Your task to perform on an android device: change notification settings in the gmail app Image 0: 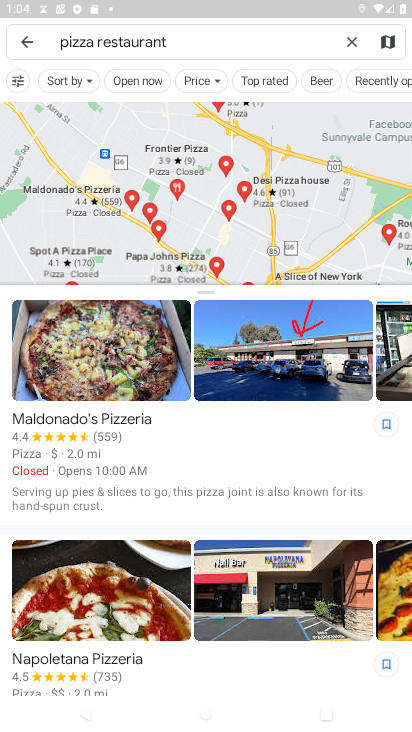
Step 0: press back button
Your task to perform on an android device: change notification settings in the gmail app Image 1: 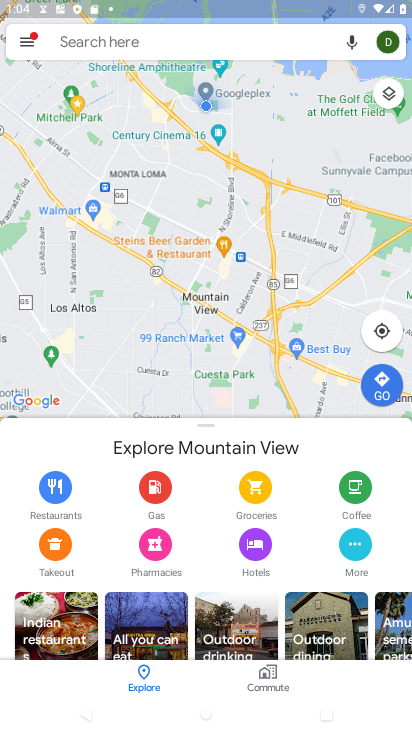
Step 1: press back button
Your task to perform on an android device: change notification settings in the gmail app Image 2: 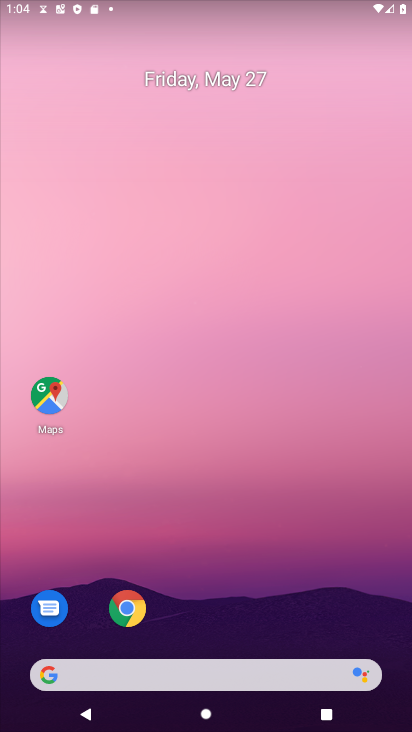
Step 2: drag from (189, 629) to (253, 72)
Your task to perform on an android device: change notification settings in the gmail app Image 3: 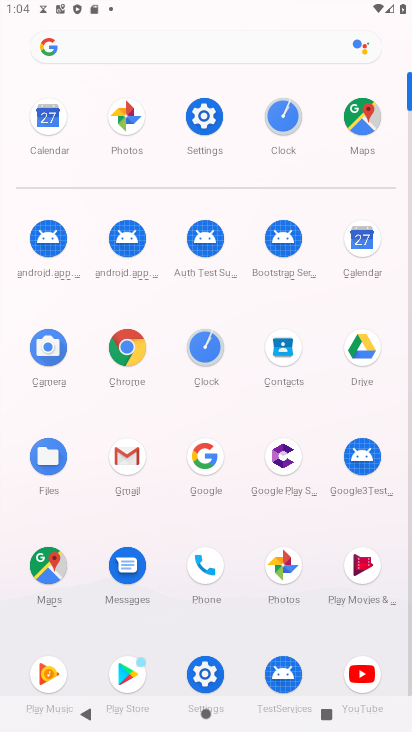
Step 3: click (126, 459)
Your task to perform on an android device: change notification settings in the gmail app Image 4: 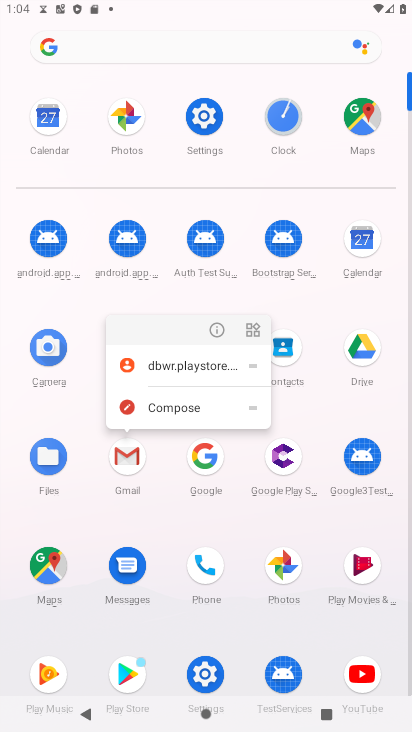
Step 4: click (219, 327)
Your task to perform on an android device: change notification settings in the gmail app Image 5: 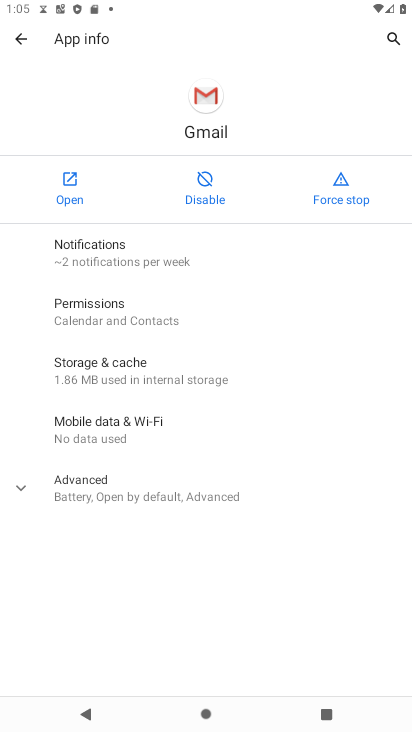
Step 5: click (110, 250)
Your task to perform on an android device: change notification settings in the gmail app Image 6: 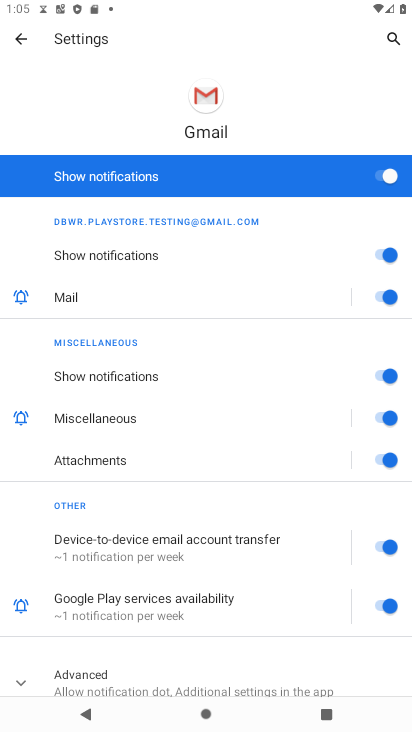
Step 6: click (391, 255)
Your task to perform on an android device: change notification settings in the gmail app Image 7: 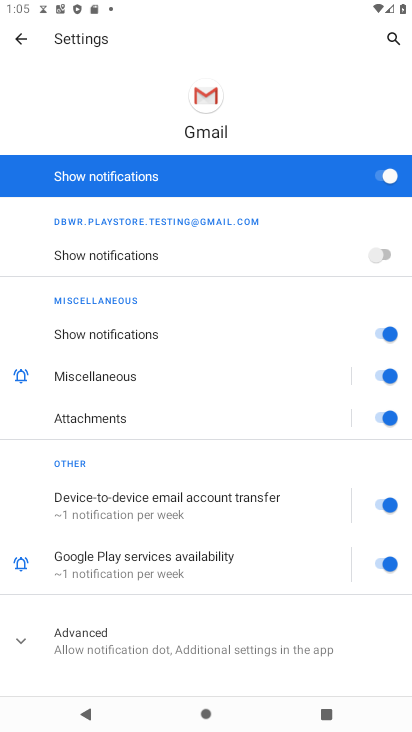
Step 7: task complete